Your task to perform on an android device: Open internet settings Image 0: 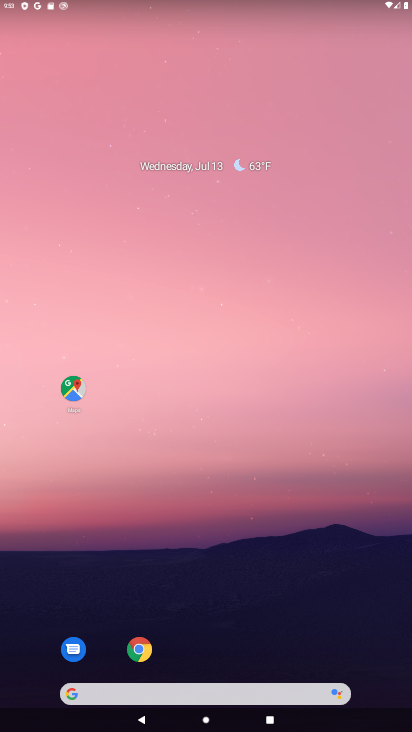
Step 0: drag from (307, 640) to (267, 3)
Your task to perform on an android device: Open internet settings Image 1: 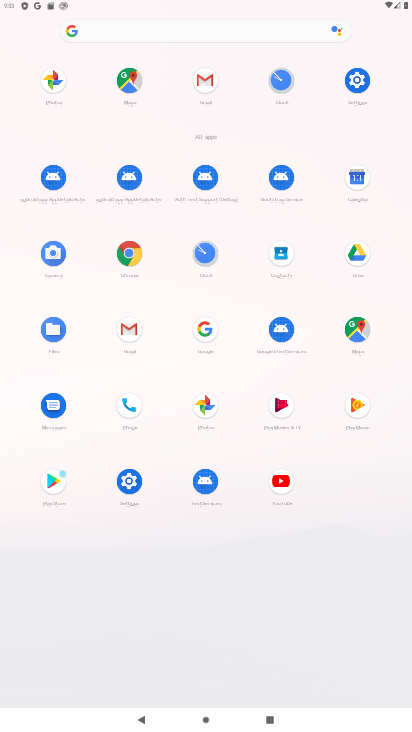
Step 1: click (345, 95)
Your task to perform on an android device: Open internet settings Image 2: 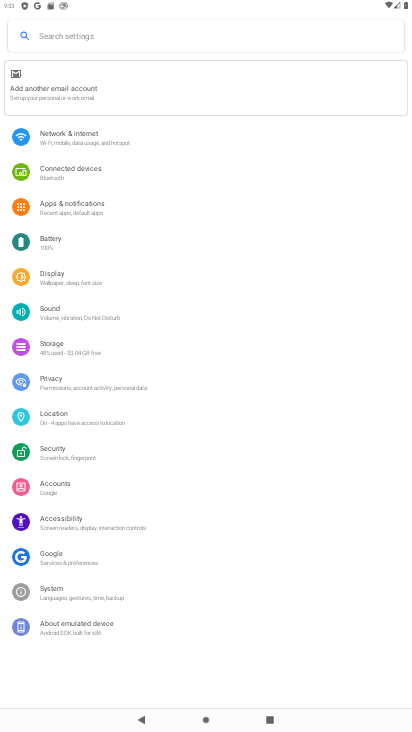
Step 2: click (53, 141)
Your task to perform on an android device: Open internet settings Image 3: 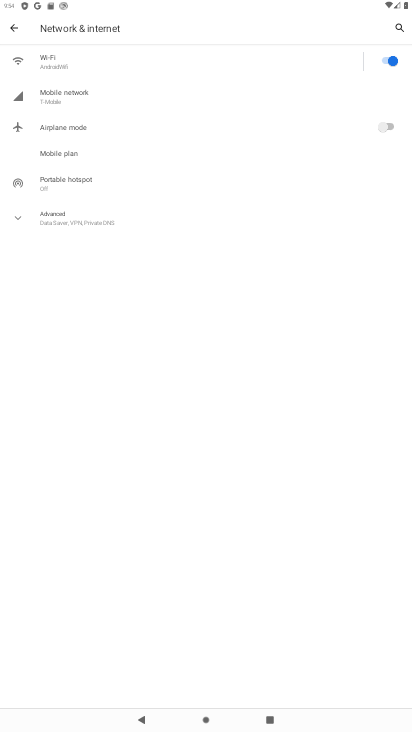
Step 3: task complete